Your task to perform on an android device: search for starred emails in the gmail app Image 0: 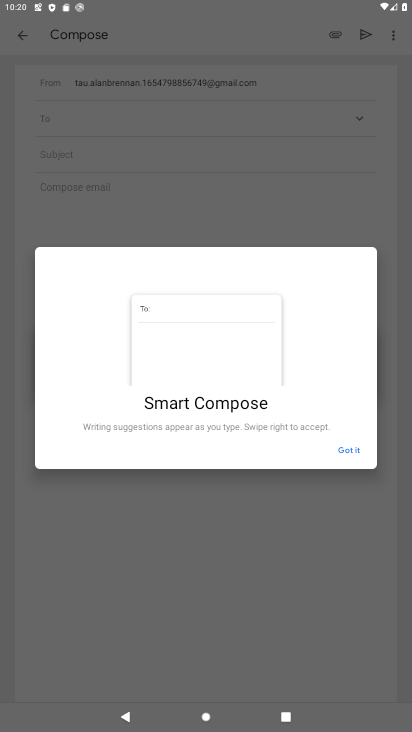
Step 0: press home button
Your task to perform on an android device: search for starred emails in the gmail app Image 1: 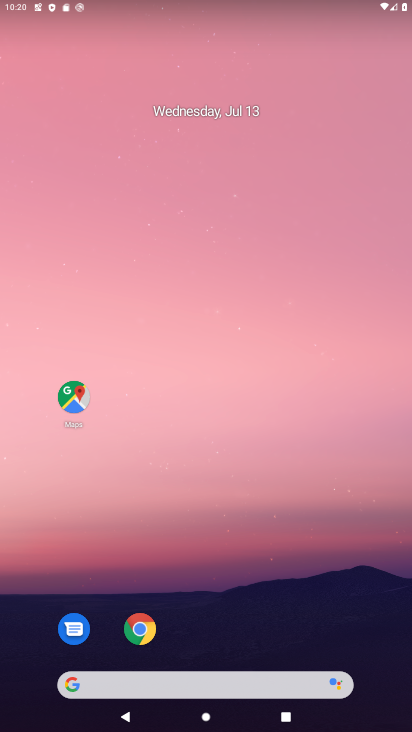
Step 1: drag from (229, 653) to (214, 116)
Your task to perform on an android device: search for starred emails in the gmail app Image 2: 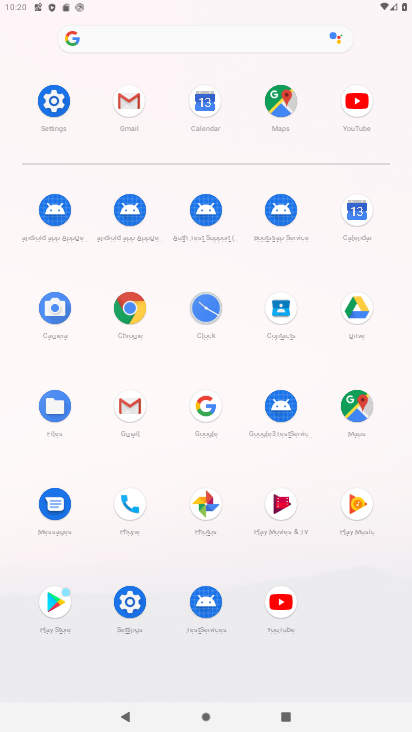
Step 2: click (125, 93)
Your task to perform on an android device: search for starred emails in the gmail app Image 3: 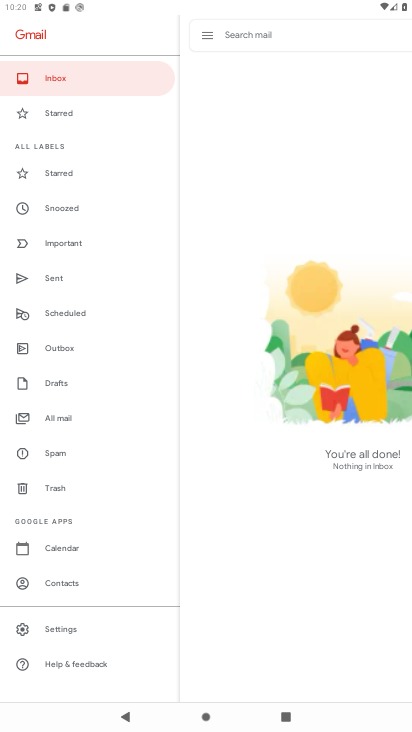
Step 3: click (68, 168)
Your task to perform on an android device: search for starred emails in the gmail app Image 4: 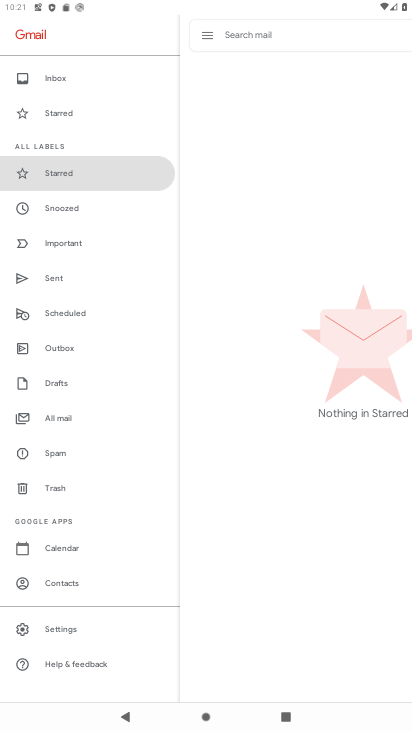
Step 4: task complete